Your task to perform on an android device: turn off data saver in the chrome app Image 0: 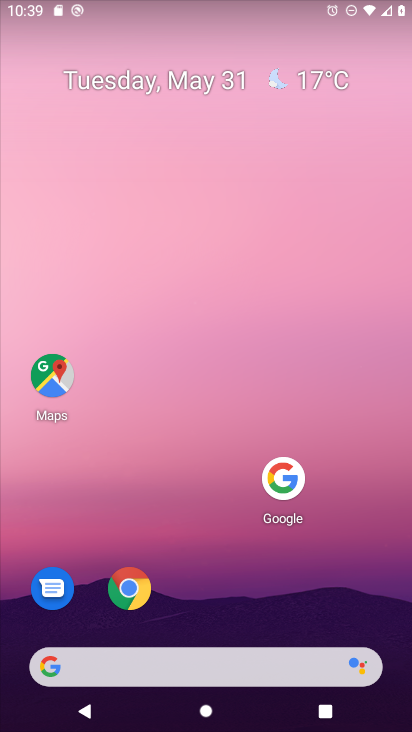
Step 0: press home button
Your task to perform on an android device: turn off data saver in the chrome app Image 1: 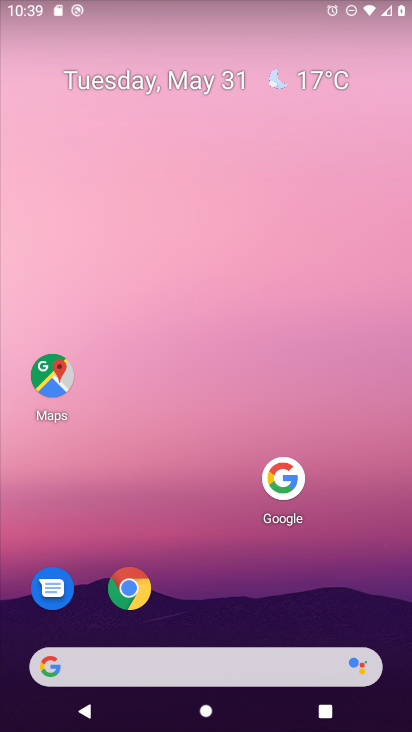
Step 1: drag from (182, 665) to (217, 252)
Your task to perform on an android device: turn off data saver in the chrome app Image 2: 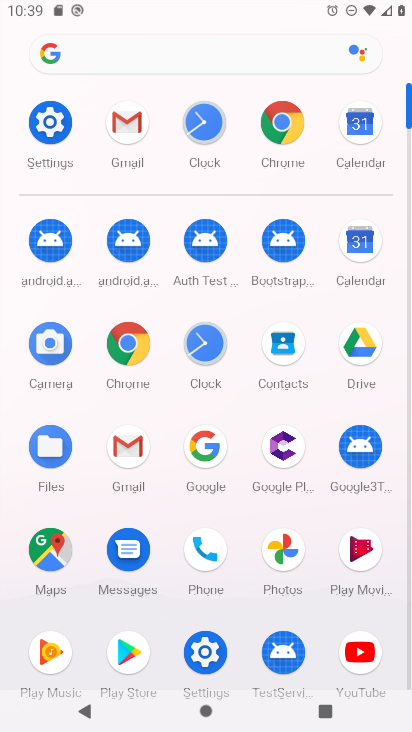
Step 2: click (283, 129)
Your task to perform on an android device: turn off data saver in the chrome app Image 3: 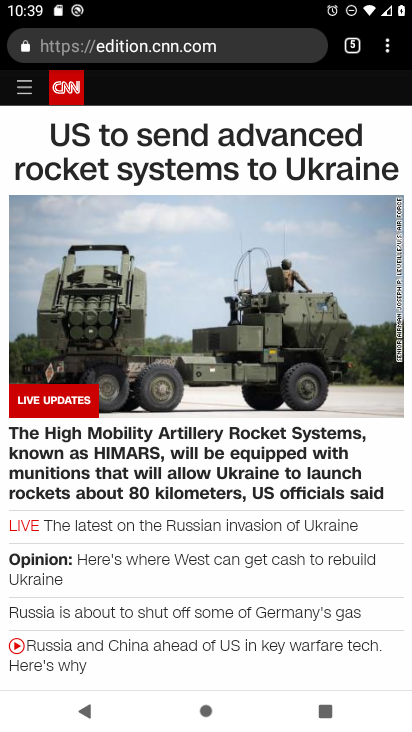
Step 3: drag from (389, 45) to (271, 504)
Your task to perform on an android device: turn off data saver in the chrome app Image 4: 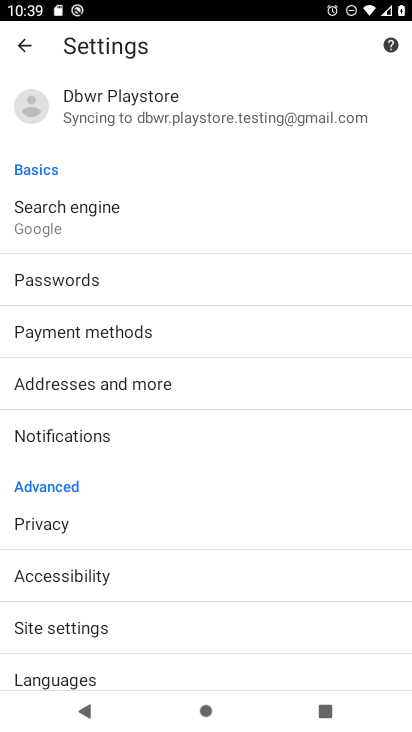
Step 4: drag from (140, 623) to (170, 340)
Your task to perform on an android device: turn off data saver in the chrome app Image 5: 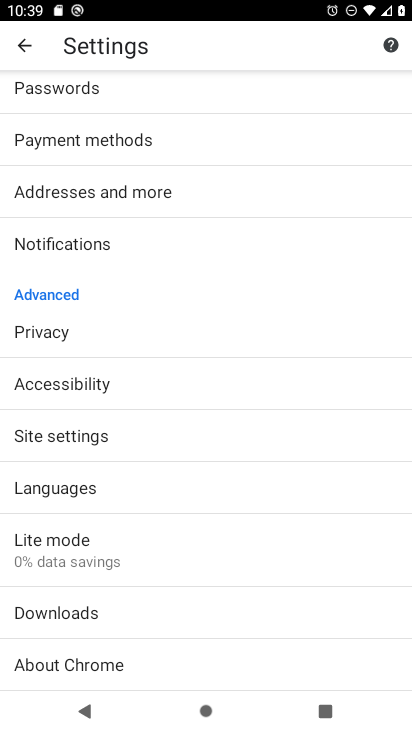
Step 5: click (89, 554)
Your task to perform on an android device: turn off data saver in the chrome app Image 6: 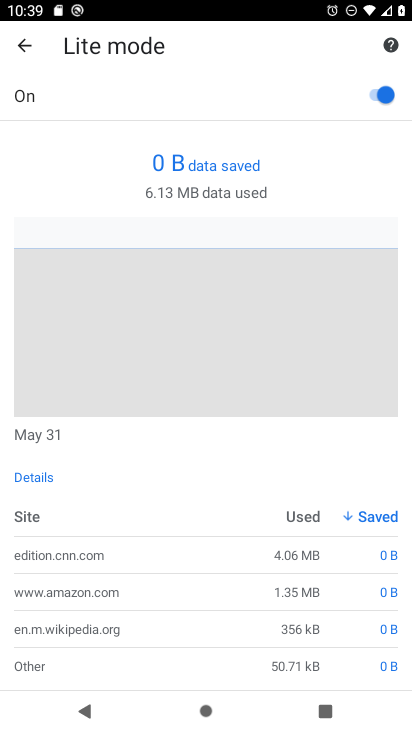
Step 6: click (372, 93)
Your task to perform on an android device: turn off data saver in the chrome app Image 7: 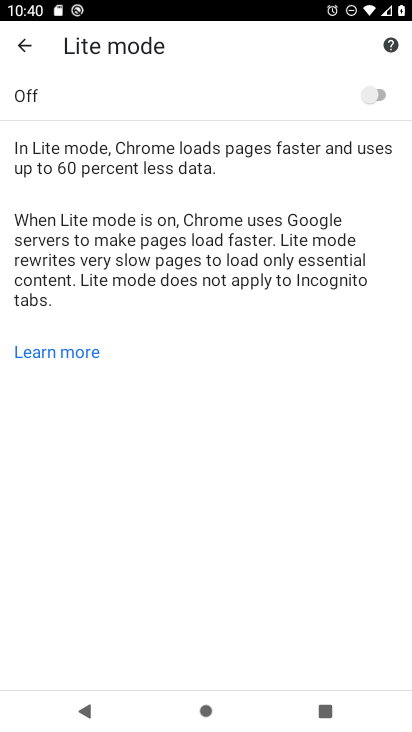
Step 7: task complete